Your task to perform on an android device: turn on javascript in the chrome app Image 0: 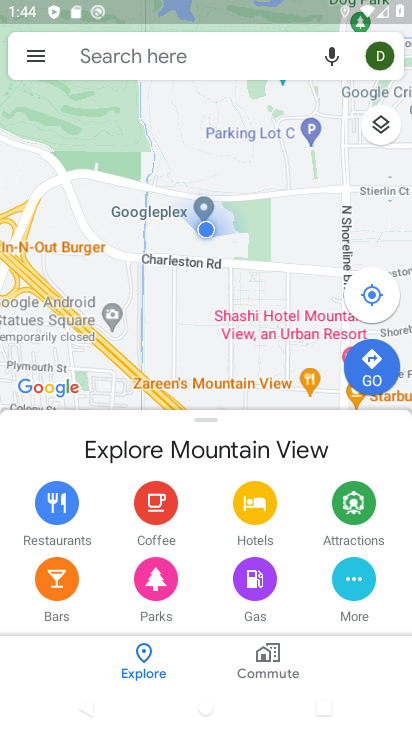
Step 0: press home button
Your task to perform on an android device: turn on javascript in the chrome app Image 1: 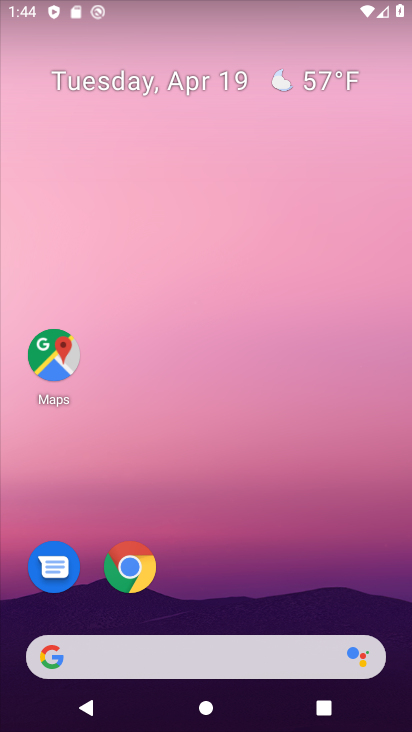
Step 1: click (127, 570)
Your task to perform on an android device: turn on javascript in the chrome app Image 2: 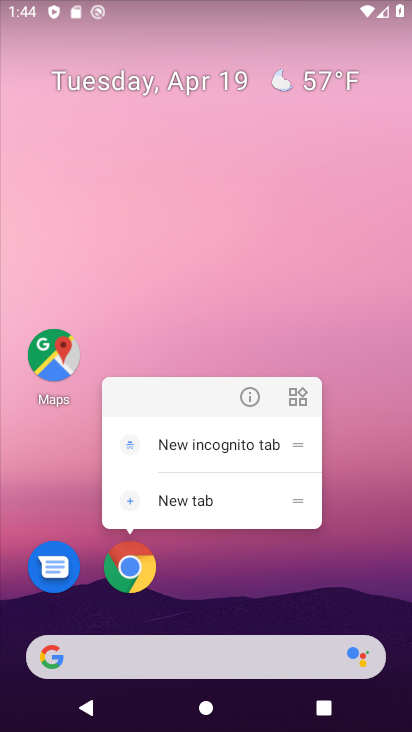
Step 2: click (116, 572)
Your task to perform on an android device: turn on javascript in the chrome app Image 3: 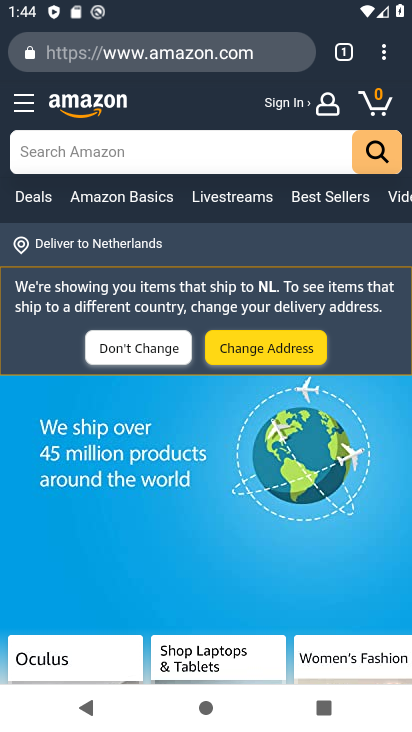
Step 3: click (381, 53)
Your task to perform on an android device: turn on javascript in the chrome app Image 4: 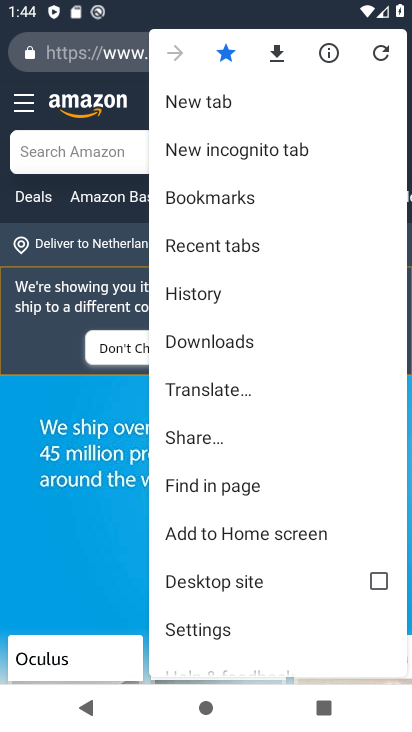
Step 4: click (204, 626)
Your task to perform on an android device: turn on javascript in the chrome app Image 5: 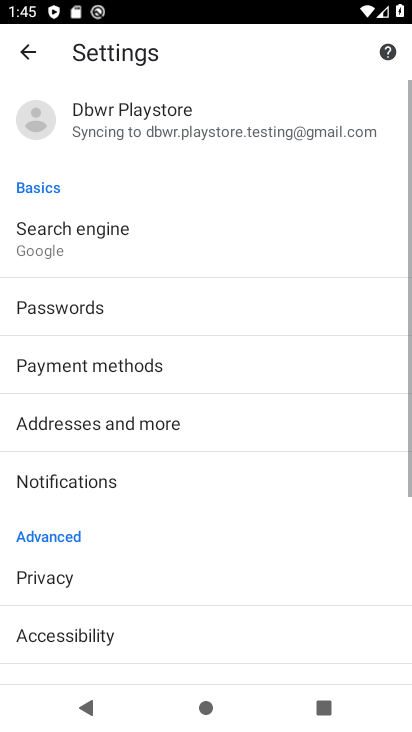
Step 5: drag from (166, 553) to (206, 193)
Your task to perform on an android device: turn on javascript in the chrome app Image 6: 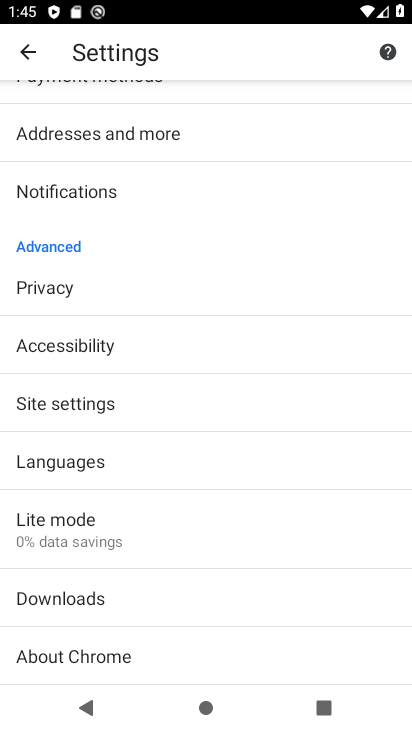
Step 6: click (105, 401)
Your task to perform on an android device: turn on javascript in the chrome app Image 7: 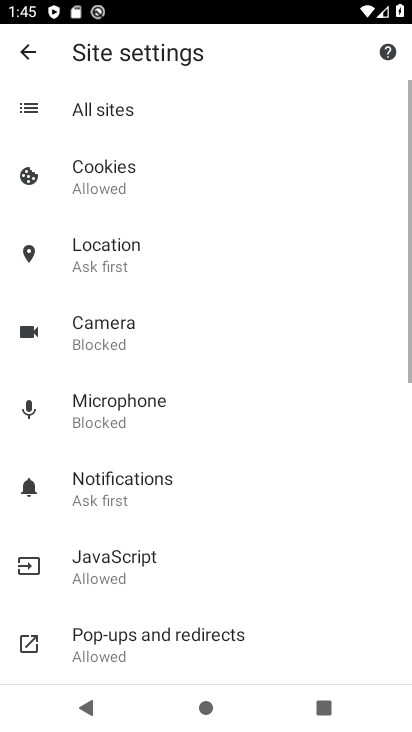
Step 7: drag from (185, 596) to (195, 480)
Your task to perform on an android device: turn on javascript in the chrome app Image 8: 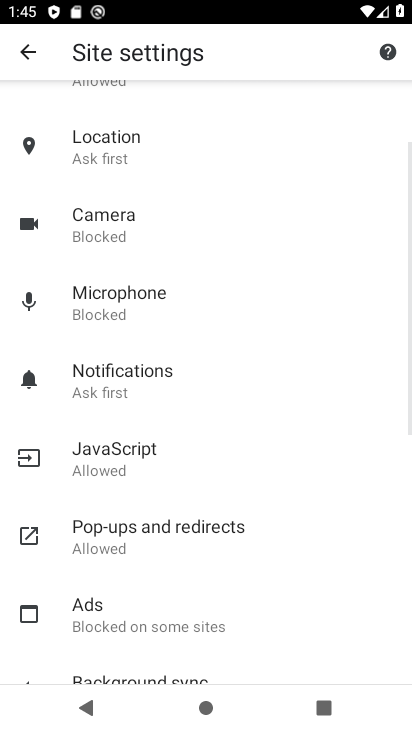
Step 8: click (146, 462)
Your task to perform on an android device: turn on javascript in the chrome app Image 9: 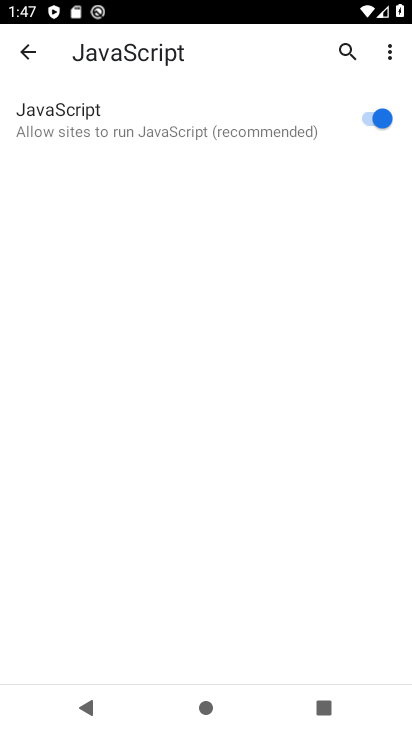
Step 9: task complete